Your task to perform on an android device: Is it going to rain today? Image 0: 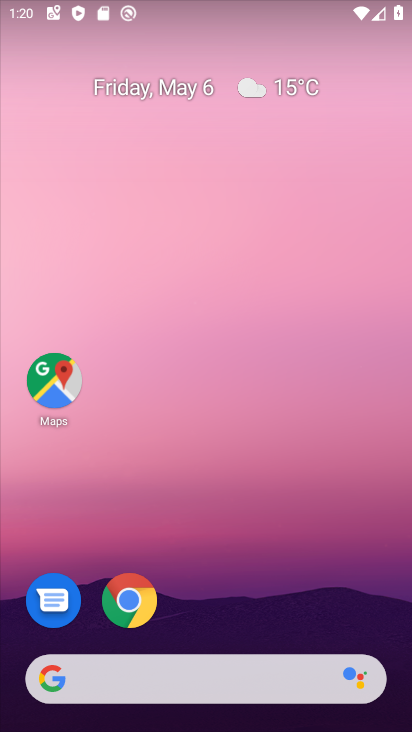
Step 0: click (204, 688)
Your task to perform on an android device: Is it going to rain today? Image 1: 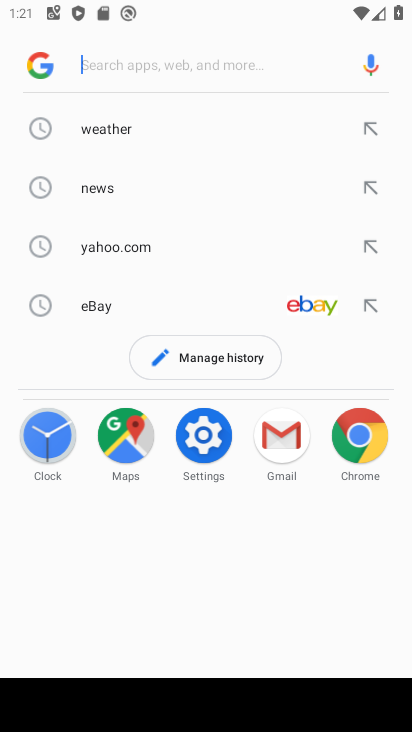
Step 1: click (109, 125)
Your task to perform on an android device: Is it going to rain today? Image 2: 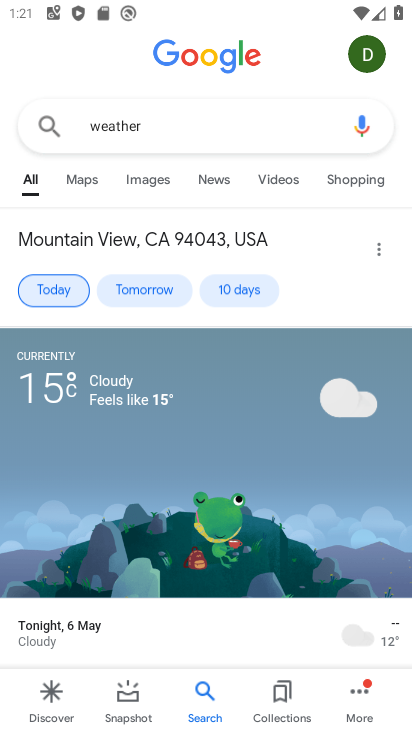
Step 2: task complete